Your task to perform on an android device: Open Chrome and go to settings Image 0: 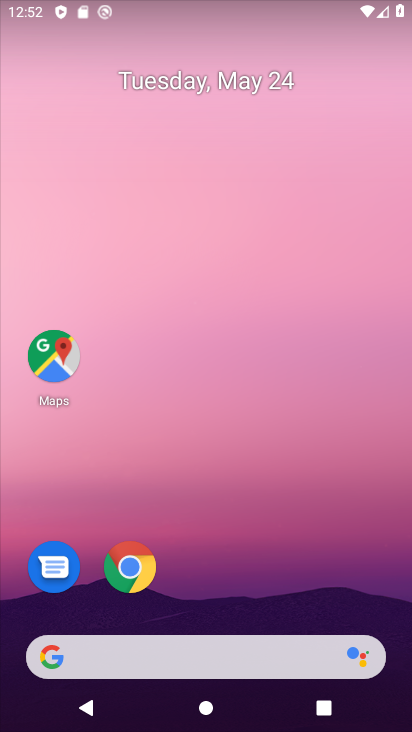
Step 0: click (136, 587)
Your task to perform on an android device: Open Chrome and go to settings Image 1: 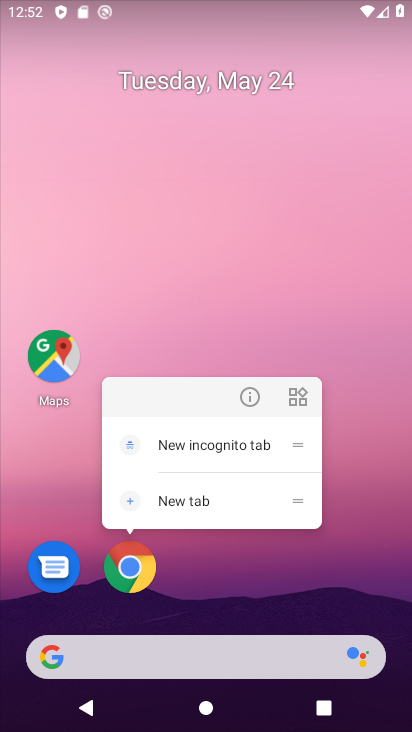
Step 1: click (130, 572)
Your task to perform on an android device: Open Chrome and go to settings Image 2: 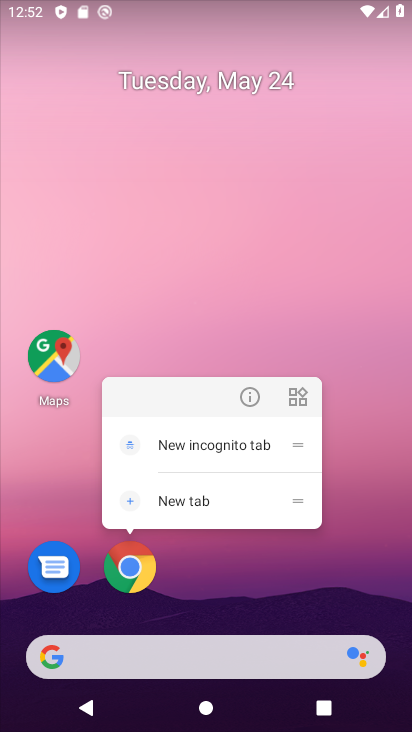
Step 2: click (144, 591)
Your task to perform on an android device: Open Chrome and go to settings Image 3: 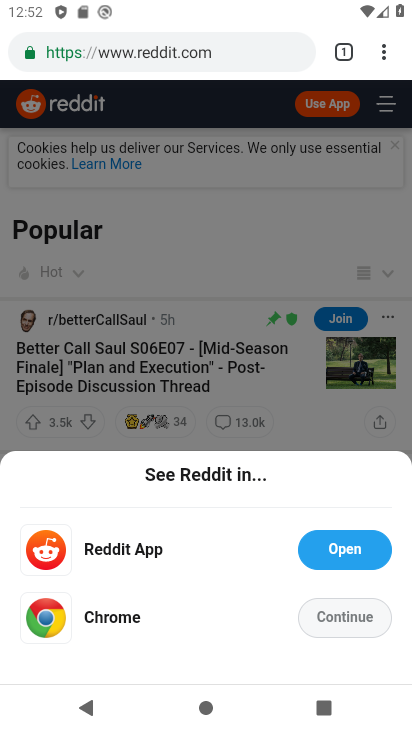
Step 3: click (378, 61)
Your task to perform on an android device: Open Chrome and go to settings Image 4: 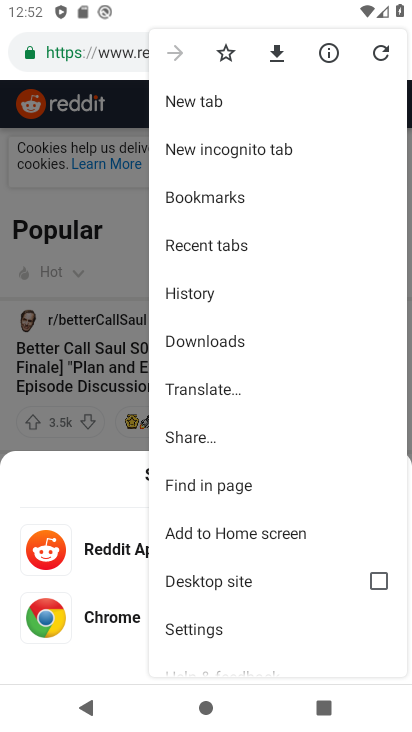
Step 4: click (211, 631)
Your task to perform on an android device: Open Chrome and go to settings Image 5: 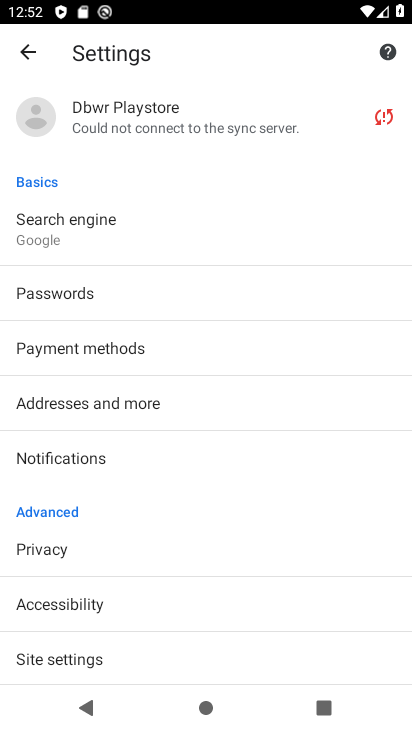
Step 5: task complete